Your task to perform on an android device: Clear the shopping cart on newegg. Search for usb-c to usb-a on newegg, select the first entry, and add it to the cart. Image 0: 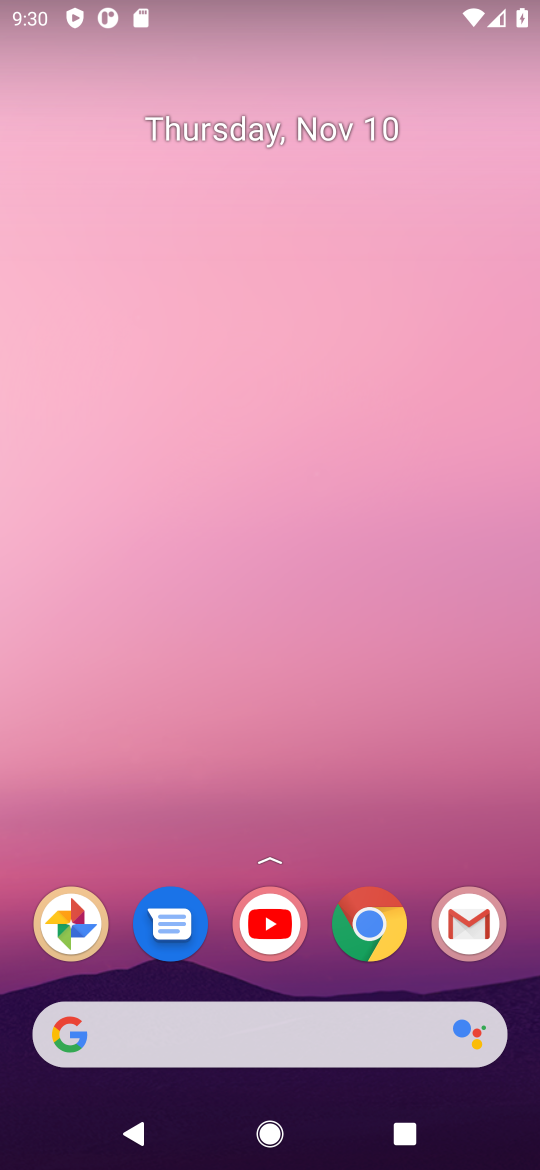
Step 0: click (377, 933)
Your task to perform on an android device: Clear the shopping cart on newegg. Search for usb-c to usb-a on newegg, select the first entry, and add it to the cart. Image 1: 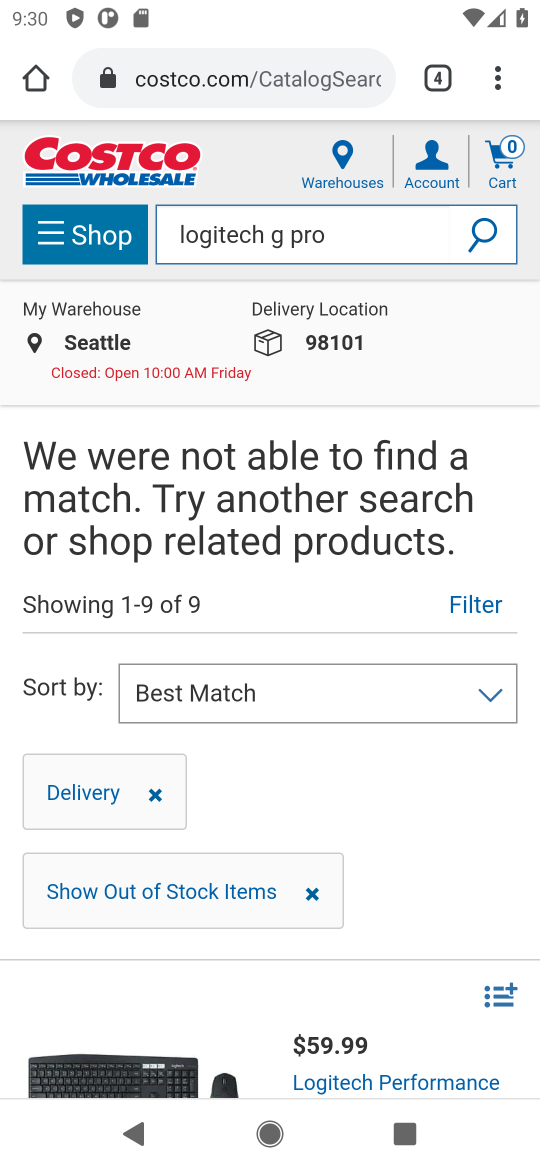
Step 1: click (223, 81)
Your task to perform on an android device: Clear the shopping cart on newegg. Search for usb-c to usb-a on newegg, select the first entry, and add it to the cart. Image 2: 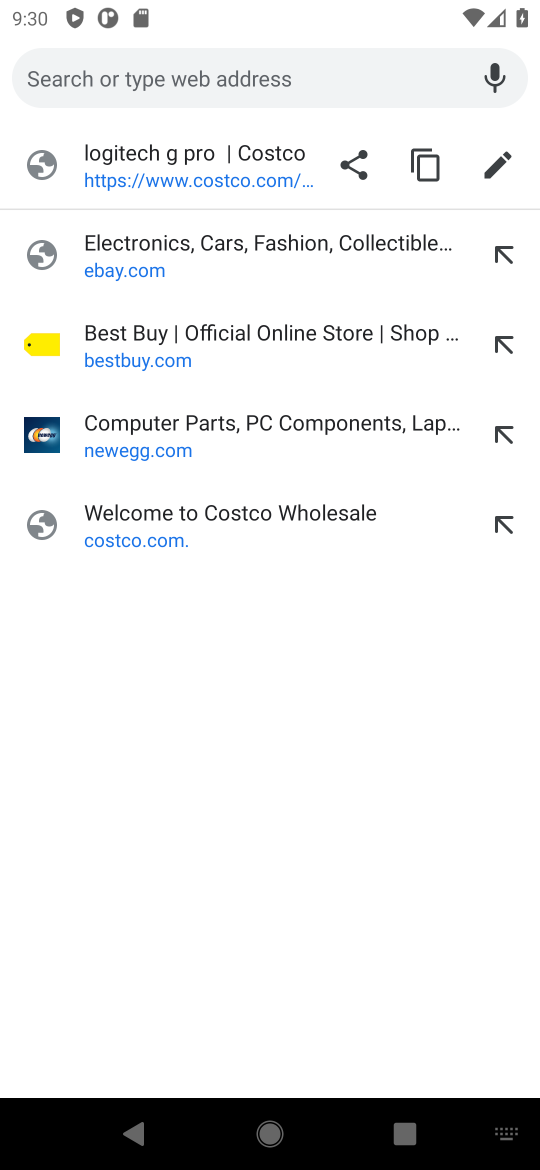
Step 2: click (137, 432)
Your task to perform on an android device: Clear the shopping cart on newegg. Search for usb-c to usb-a on newegg, select the first entry, and add it to the cart. Image 3: 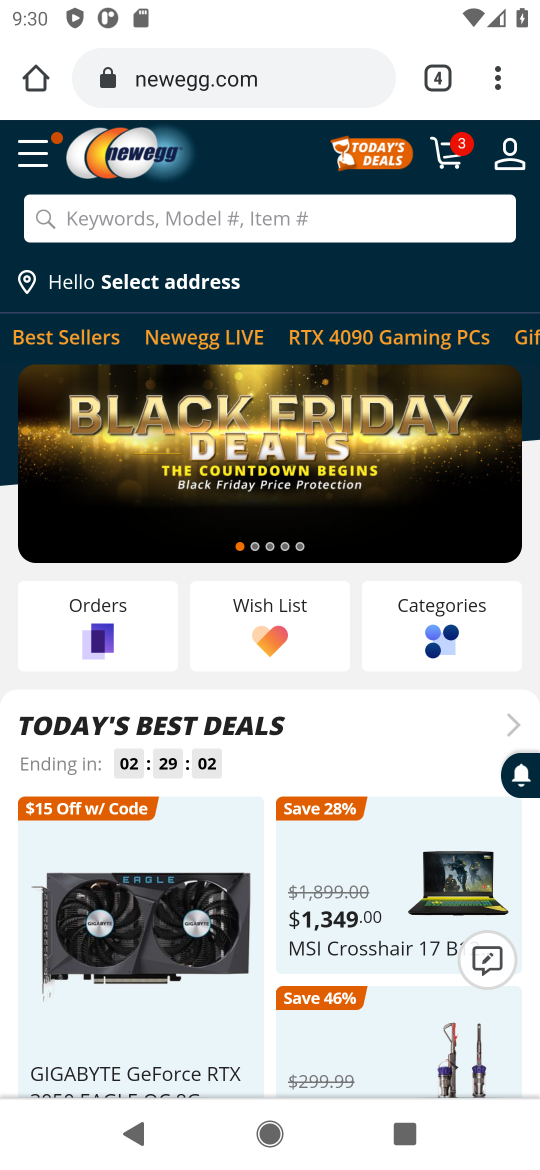
Step 3: click (452, 162)
Your task to perform on an android device: Clear the shopping cart on newegg. Search for usb-c to usb-a on newegg, select the first entry, and add it to the cart. Image 4: 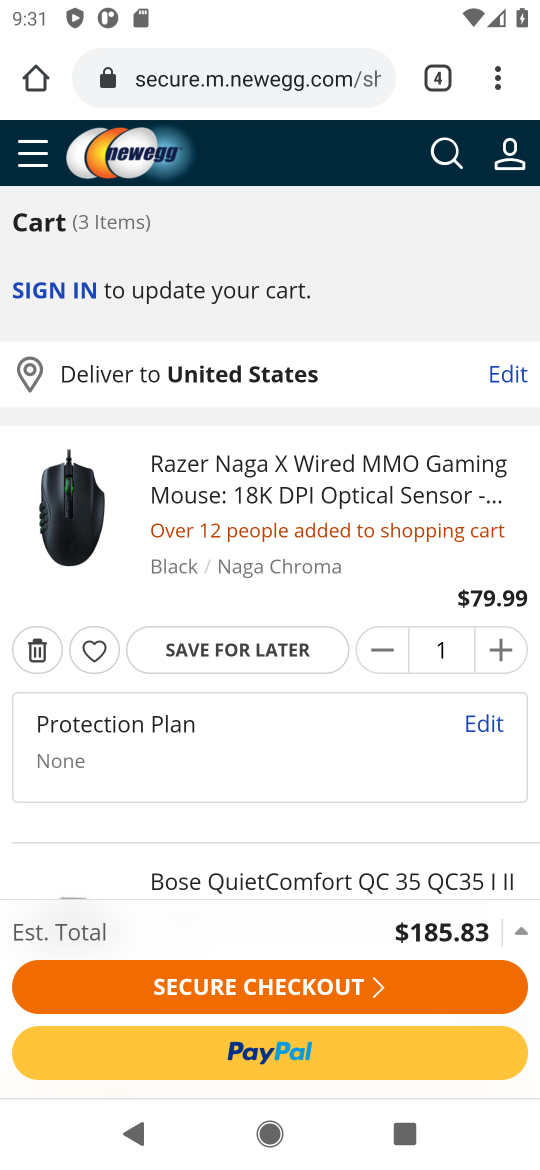
Step 4: click (44, 654)
Your task to perform on an android device: Clear the shopping cart on newegg. Search for usb-c to usb-a on newegg, select the first entry, and add it to the cart. Image 5: 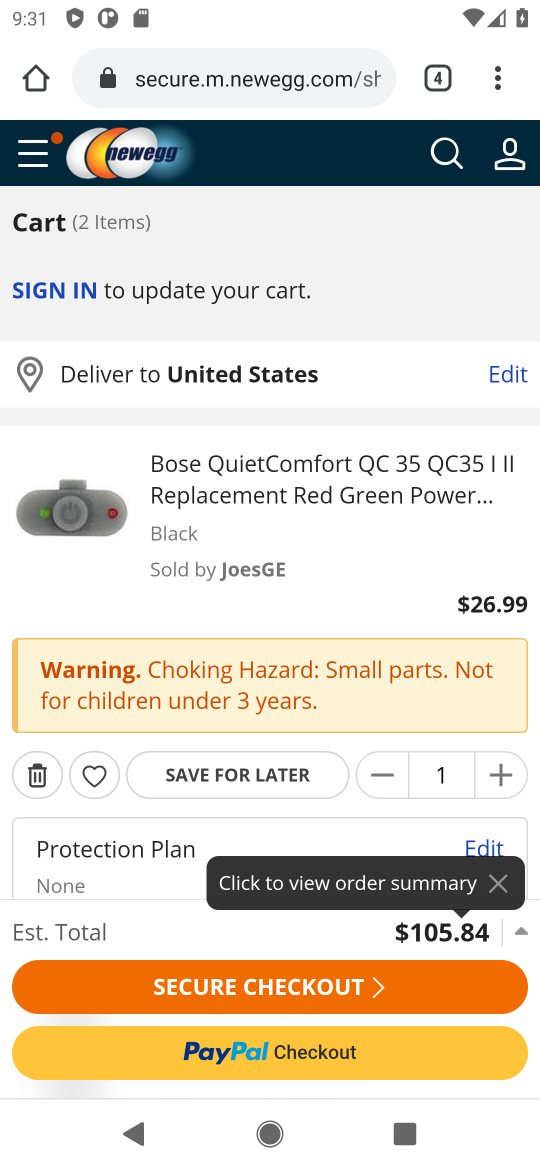
Step 5: click (39, 784)
Your task to perform on an android device: Clear the shopping cart on newegg. Search for usb-c to usb-a on newegg, select the first entry, and add it to the cart. Image 6: 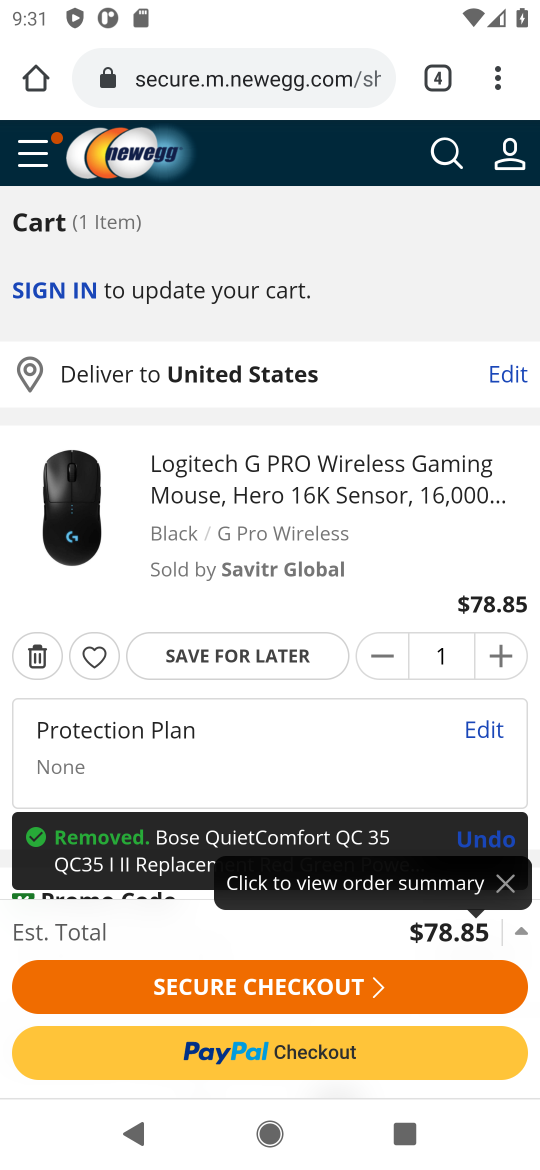
Step 6: click (43, 658)
Your task to perform on an android device: Clear the shopping cart on newegg. Search for usb-c to usb-a on newegg, select the first entry, and add it to the cart. Image 7: 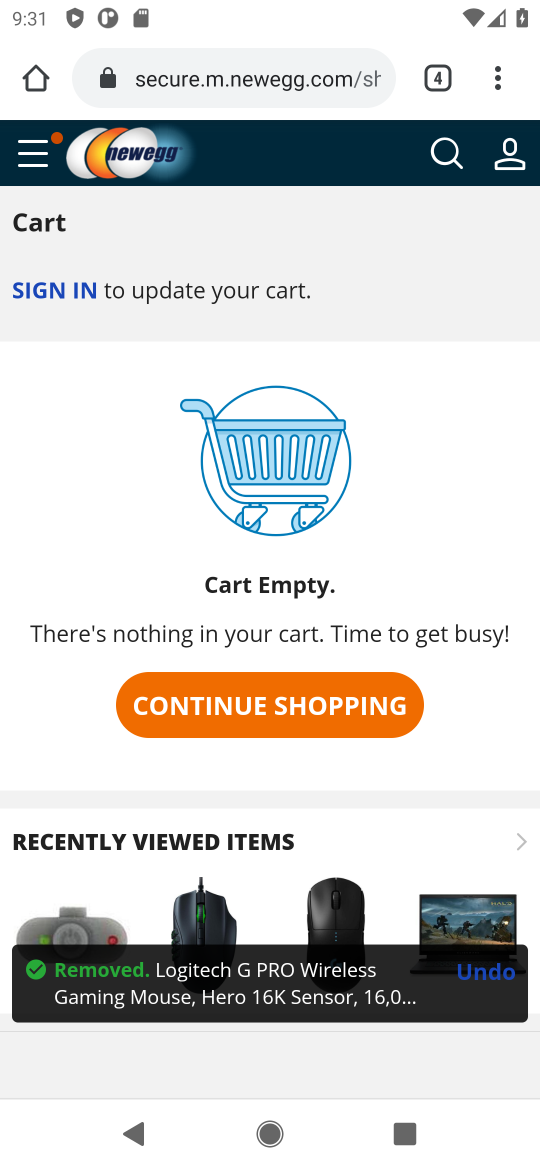
Step 7: click (285, 715)
Your task to perform on an android device: Clear the shopping cart on newegg. Search for usb-c to usb-a on newegg, select the first entry, and add it to the cart. Image 8: 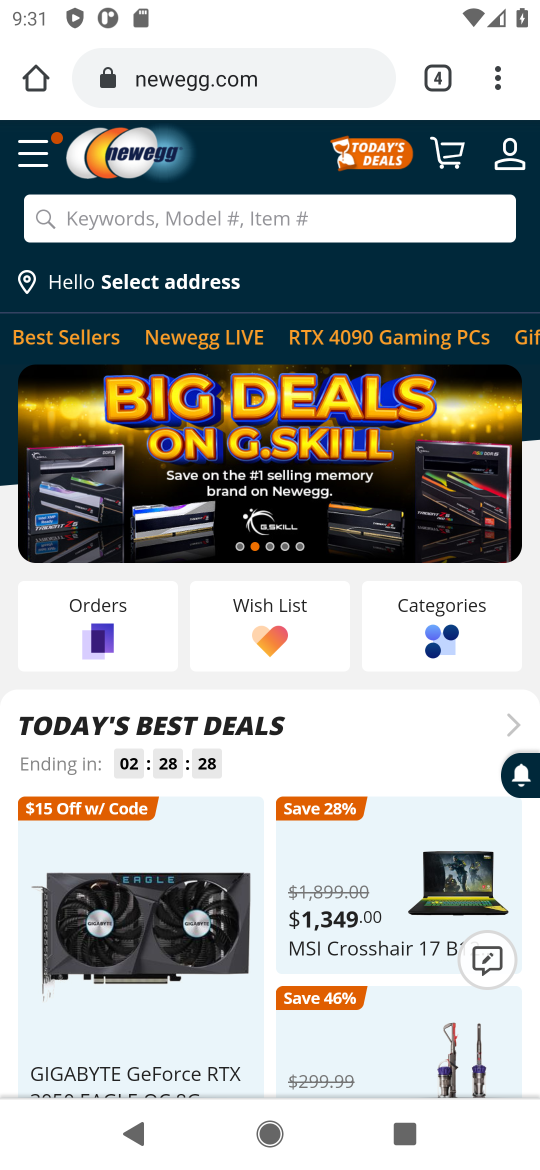
Step 8: click (130, 220)
Your task to perform on an android device: Clear the shopping cart on newegg. Search for usb-c to usb-a on newegg, select the first entry, and add it to the cart. Image 9: 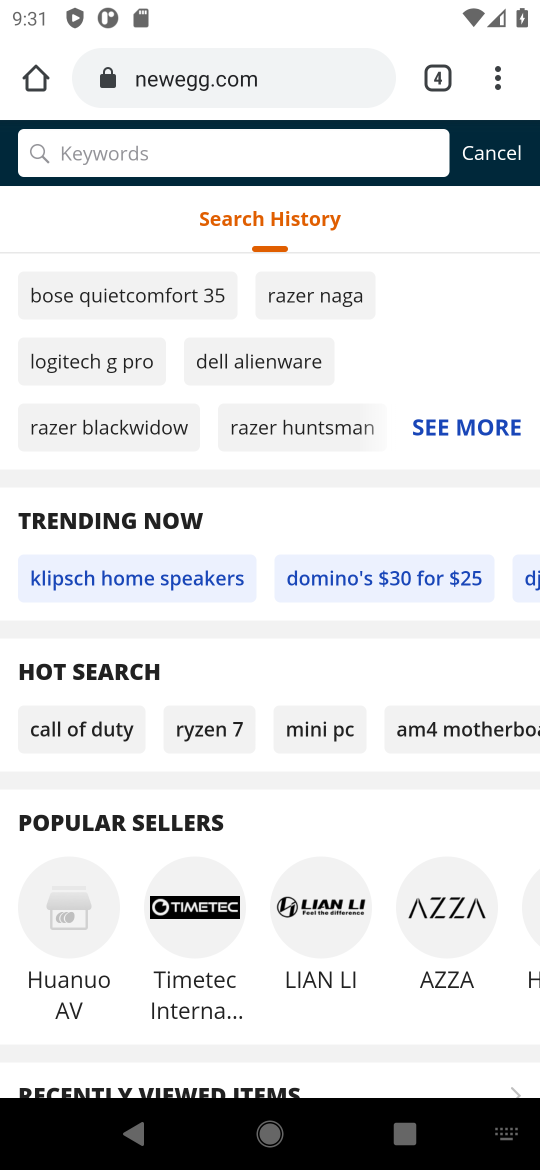
Step 9: type "usb-c to usb-a"
Your task to perform on an android device: Clear the shopping cart on newegg. Search for usb-c to usb-a on newegg, select the first entry, and add it to the cart. Image 10: 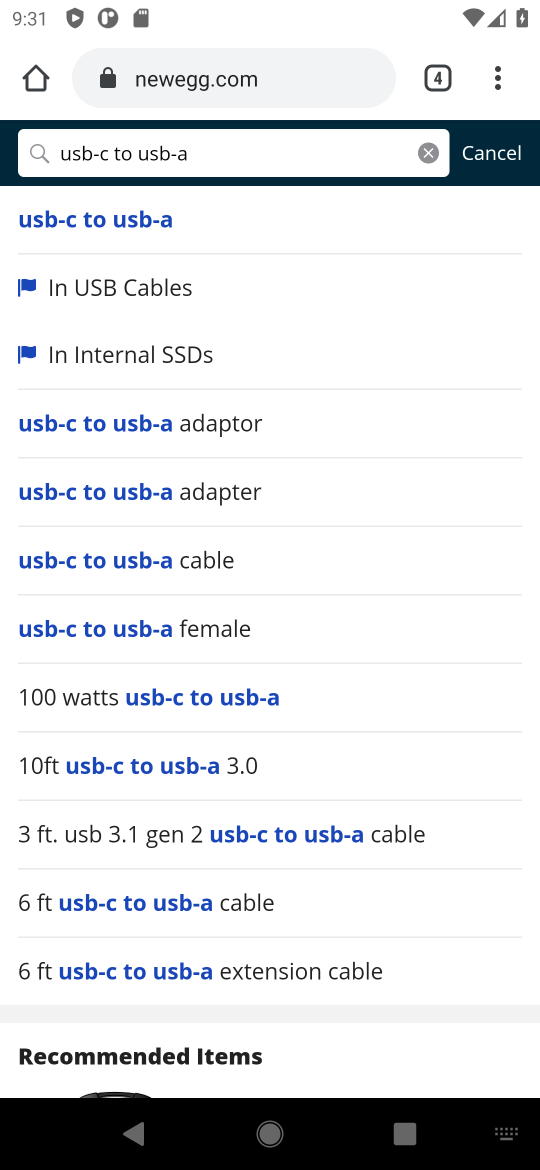
Step 10: click (96, 221)
Your task to perform on an android device: Clear the shopping cart on newegg. Search for usb-c to usb-a on newegg, select the first entry, and add it to the cart. Image 11: 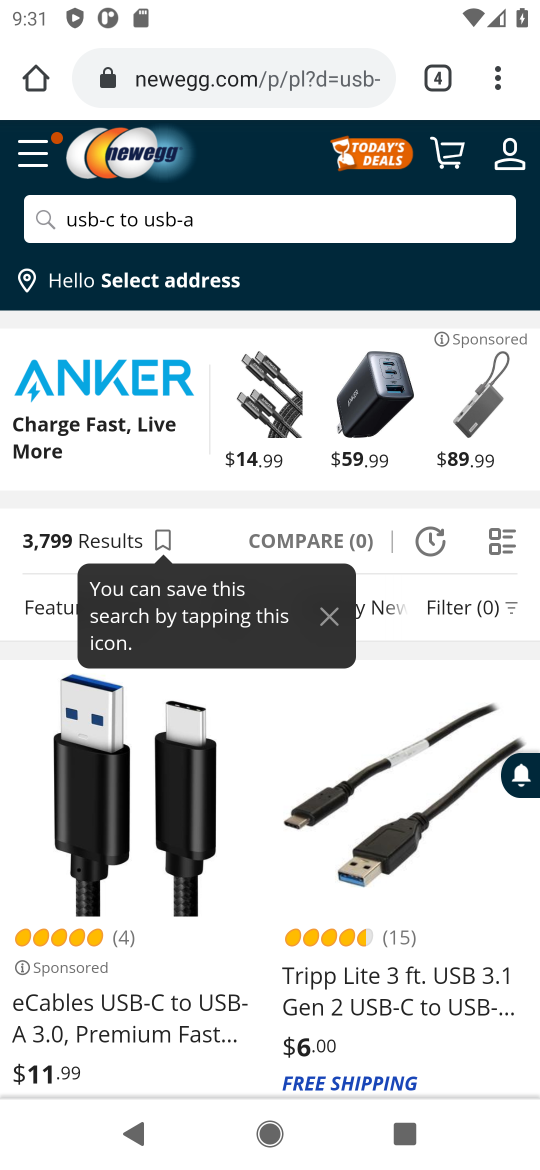
Step 11: drag from (173, 924) to (165, 749)
Your task to perform on an android device: Clear the shopping cart on newegg. Search for usb-c to usb-a on newegg, select the first entry, and add it to the cart. Image 12: 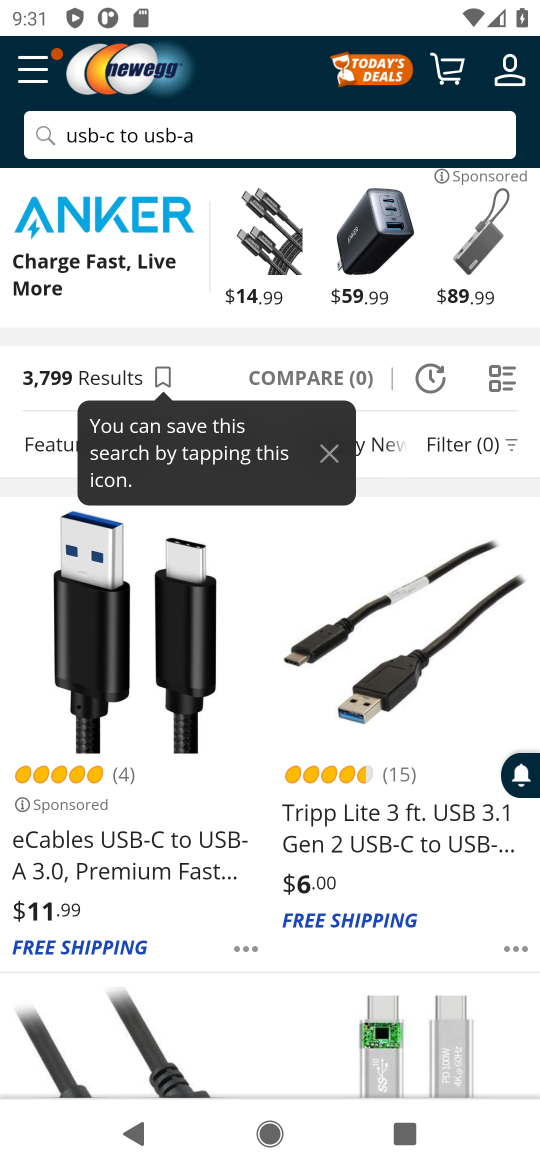
Step 12: click (132, 697)
Your task to perform on an android device: Clear the shopping cart on newegg. Search for usb-c to usb-a on newegg, select the first entry, and add it to the cart. Image 13: 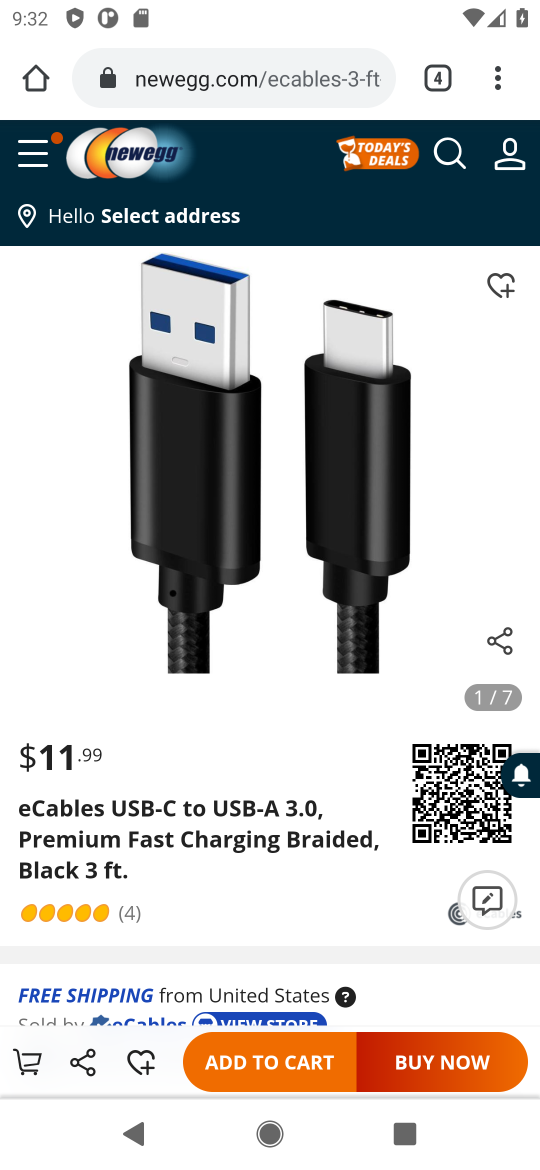
Step 13: click (277, 1075)
Your task to perform on an android device: Clear the shopping cart on newegg. Search for usb-c to usb-a on newegg, select the first entry, and add it to the cart. Image 14: 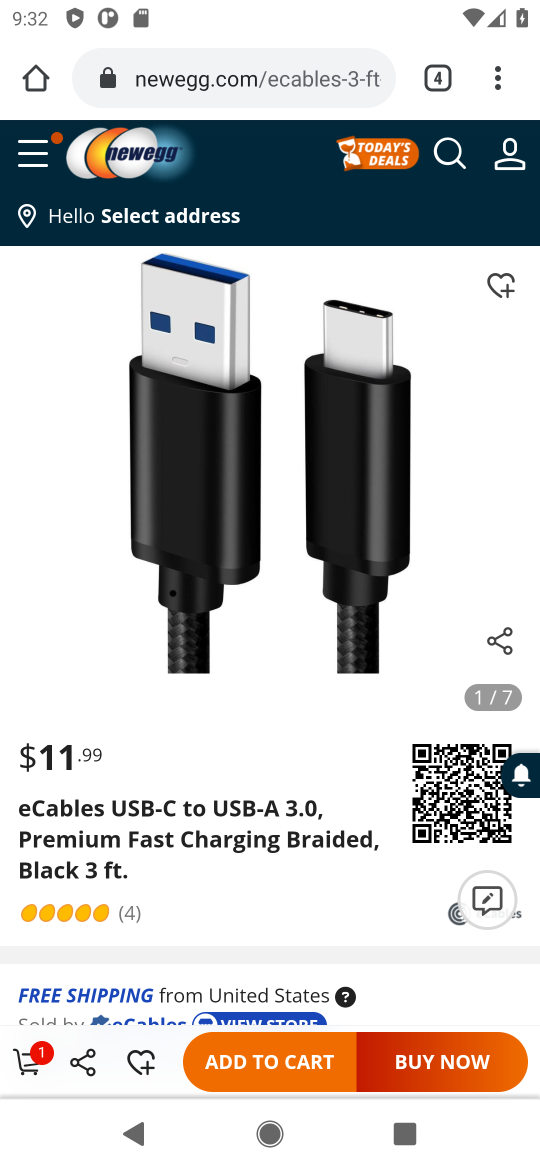
Step 14: task complete